Your task to perform on an android device: toggle priority inbox in the gmail app Image 0: 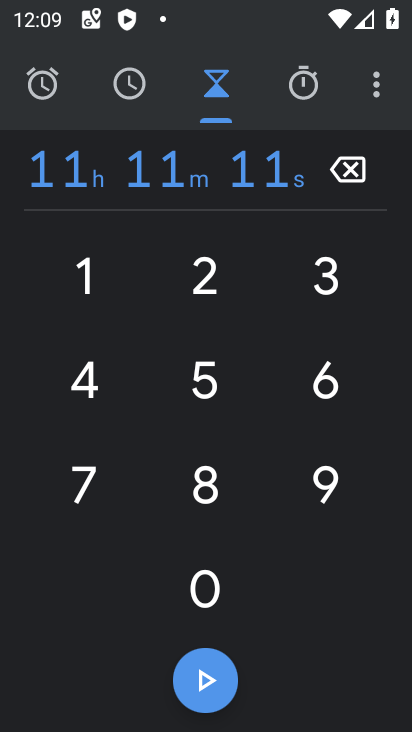
Step 0: press home button
Your task to perform on an android device: toggle priority inbox in the gmail app Image 1: 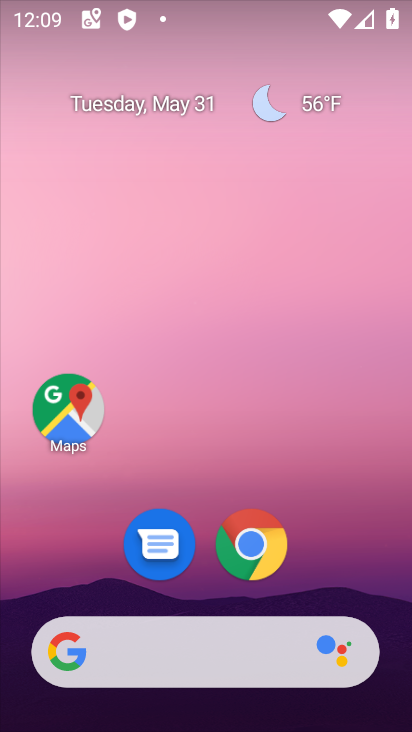
Step 1: drag from (218, 465) to (173, 11)
Your task to perform on an android device: toggle priority inbox in the gmail app Image 2: 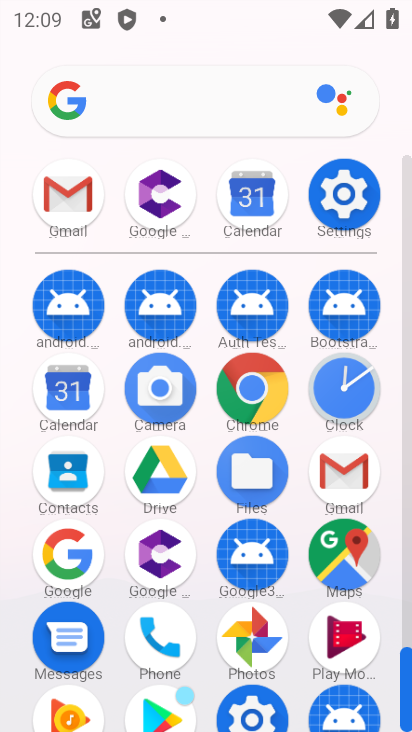
Step 2: click (72, 188)
Your task to perform on an android device: toggle priority inbox in the gmail app Image 3: 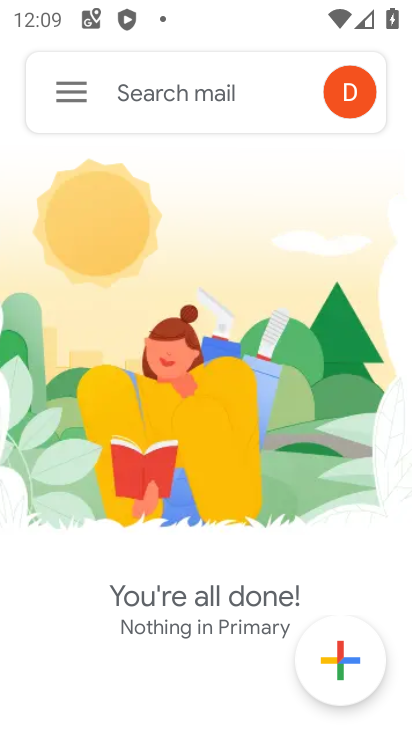
Step 3: click (55, 80)
Your task to perform on an android device: toggle priority inbox in the gmail app Image 4: 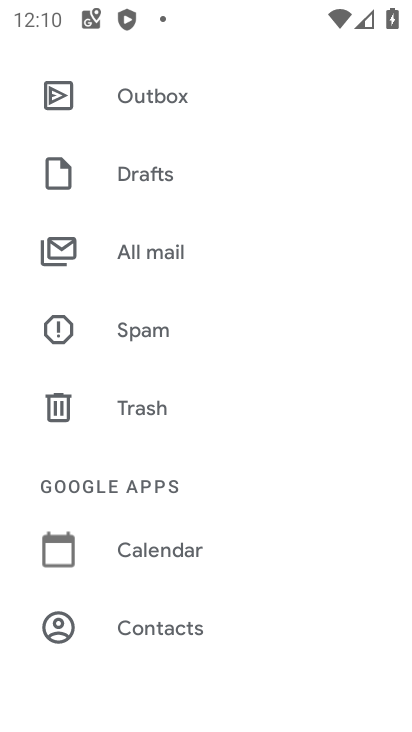
Step 4: drag from (215, 537) to (169, 145)
Your task to perform on an android device: toggle priority inbox in the gmail app Image 5: 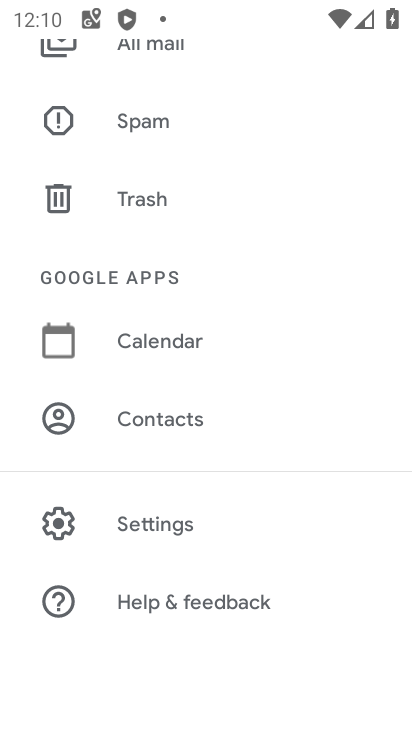
Step 5: click (171, 519)
Your task to perform on an android device: toggle priority inbox in the gmail app Image 6: 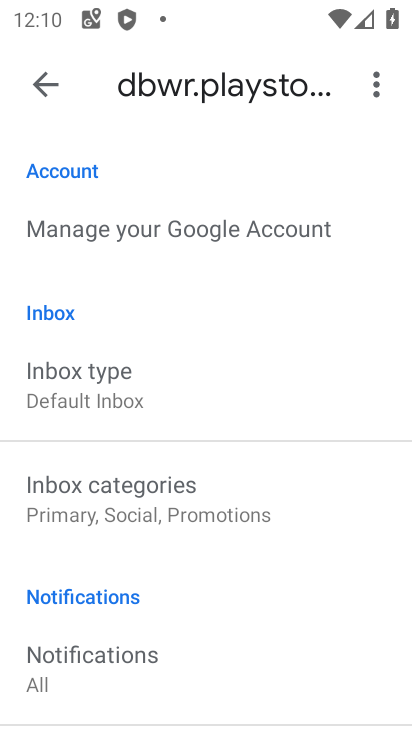
Step 6: click (86, 378)
Your task to perform on an android device: toggle priority inbox in the gmail app Image 7: 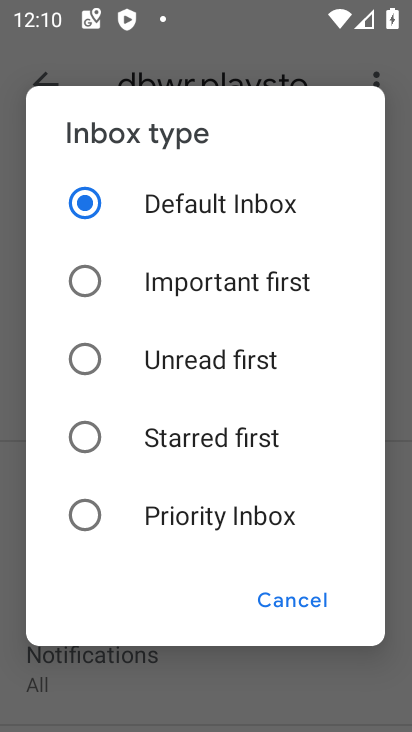
Step 7: click (80, 516)
Your task to perform on an android device: toggle priority inbox in the gmail app Image 8: 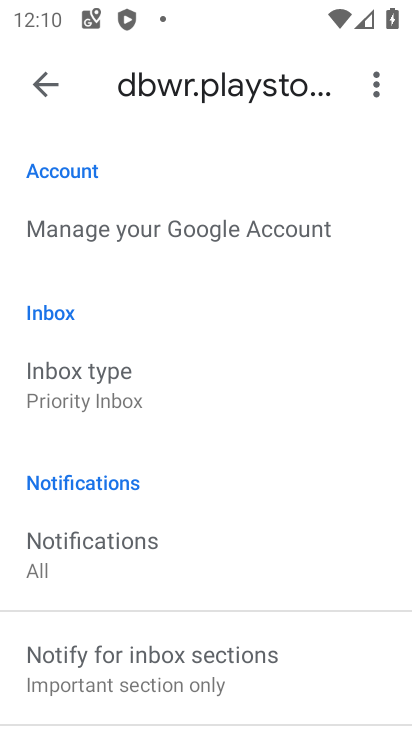
Step 8: task complete